Your task to perform on an android device: Find coffee shops on Maps Image 0: 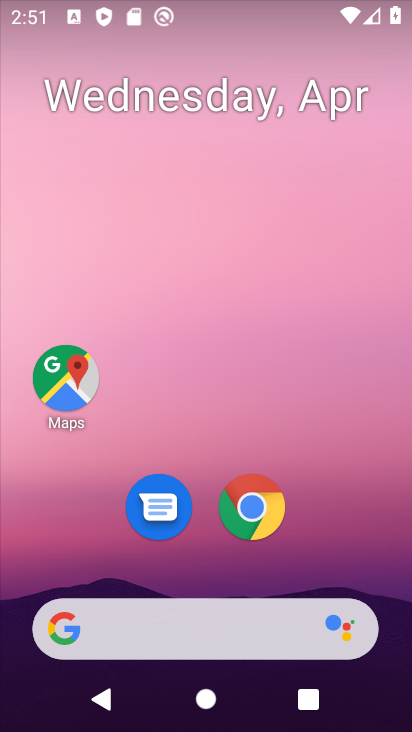
Step 0: click (63, 363)
Your task to perform on an android device: Find coffee shops on Maps Image 1: 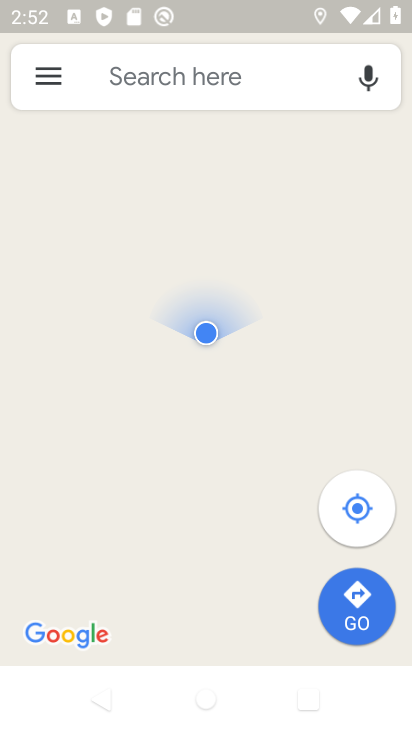
Step 1: click (178, 70)
Your task to perform on an android device: Find coffee shops on Maps Image 2: 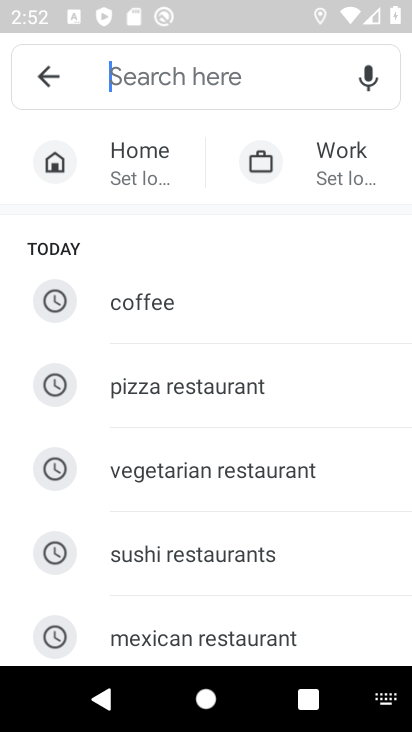
Step 2: type "coffee shops"
Your task to perform on an android device: Find coffee shops on Maps Image 3: 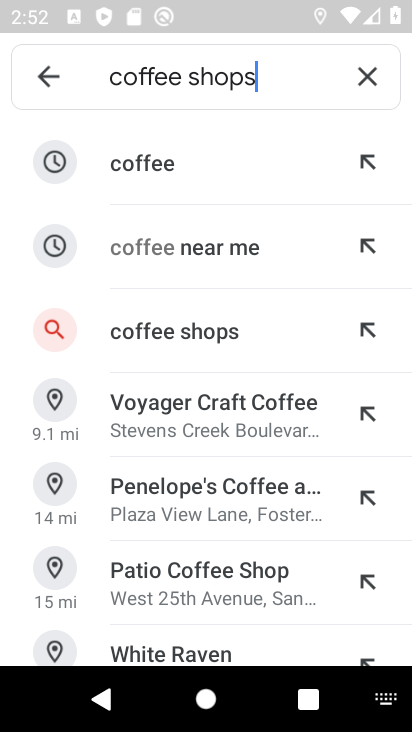
Step 3: click (205, 328)
Your task to perform on an android device: Find coffee shops on Maps Image 4: 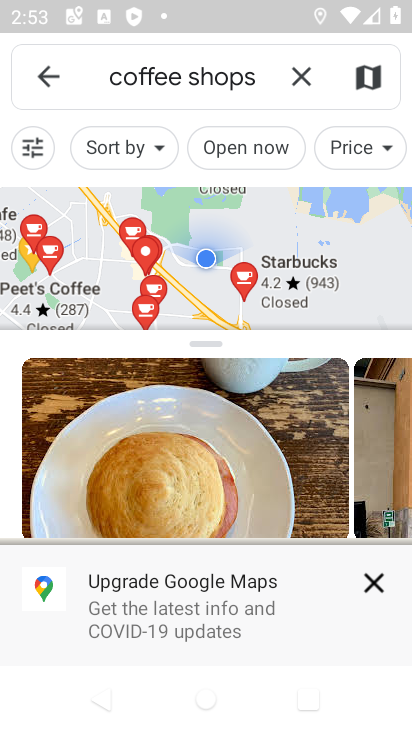
Step 4: task complete